Your task to perform on an android device: open a bookmark in the chrome app Image 0: 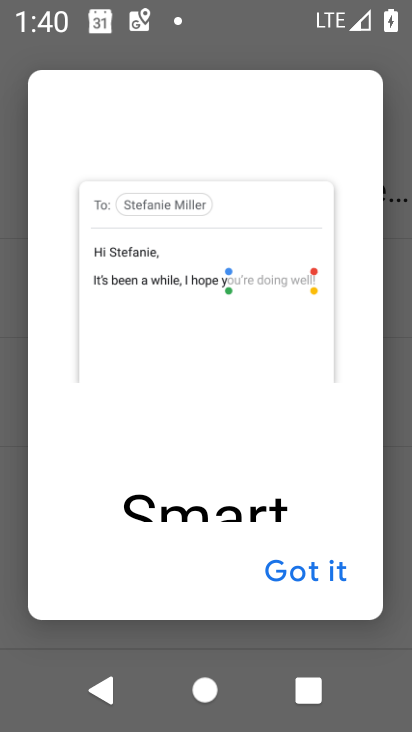
Step 0: press home button
Your task to perform on an android device: open a bookmark in the chrome app Image 1: 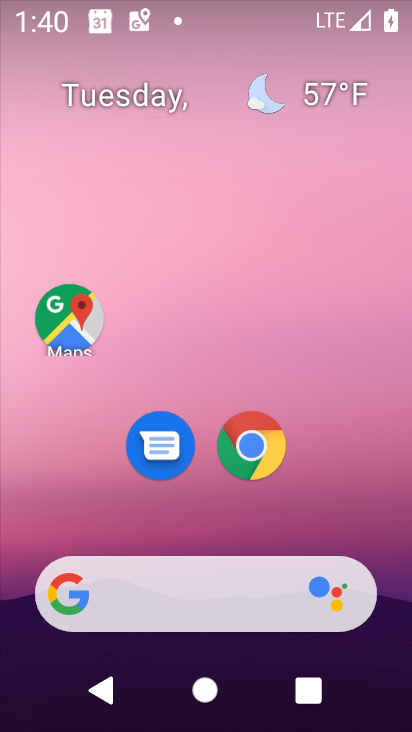
Step 1: drag from (326, 506) to (349, 127)
Your task to perform on an android device: open a bookmark in the chrome app Image 2: 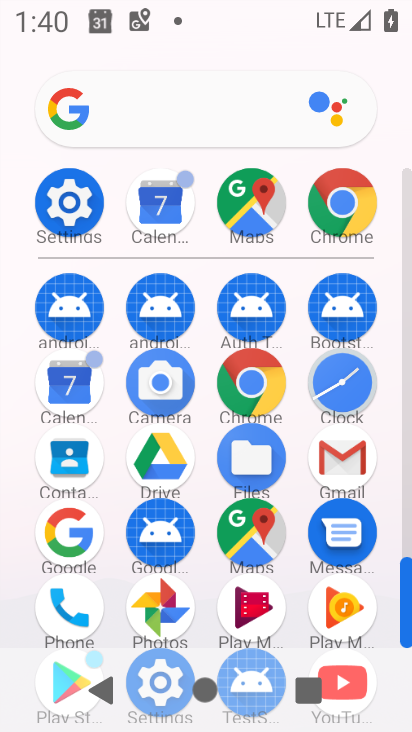
Step 2: click (265, 386)
Your task to perform on an android device: open a bookmark in the chrome app Image 3: 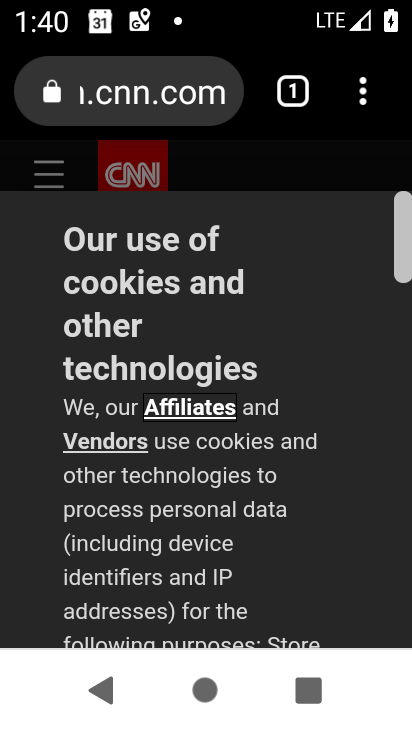
Step 3: click (359, 106)
Your task to perform on an android device: open a bookmark in the chrome app Image 4: 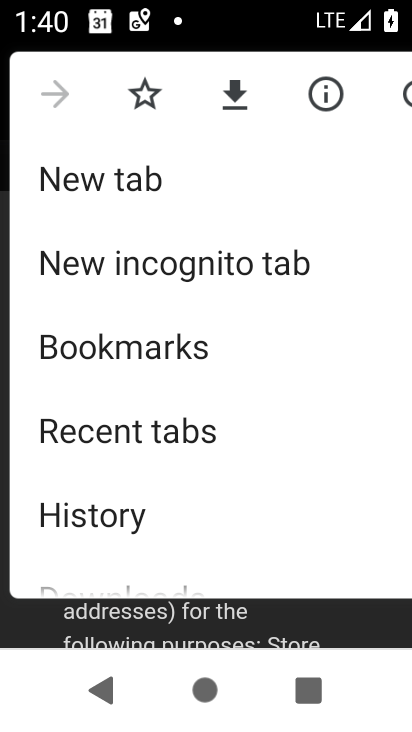
Step 4: click (188, 350)
Your task to perform on an android device: open a bookmark in the chrome app Image 5: 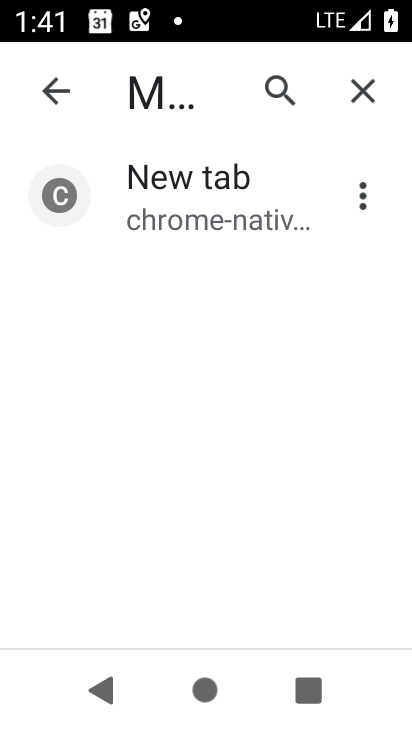
Step 5: click (235, 190)
Your task to perform on an android device: open a bookmark in the chrome app Image 6: 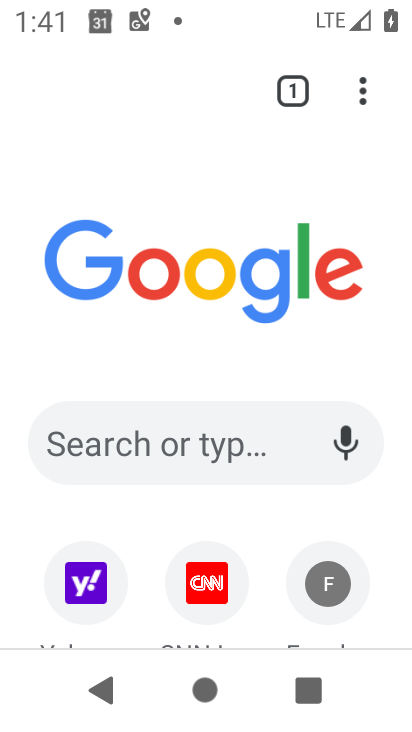
Step 6: task complete